Your task to perform on an android device: Go to calendar. Show me events next week Image 0: 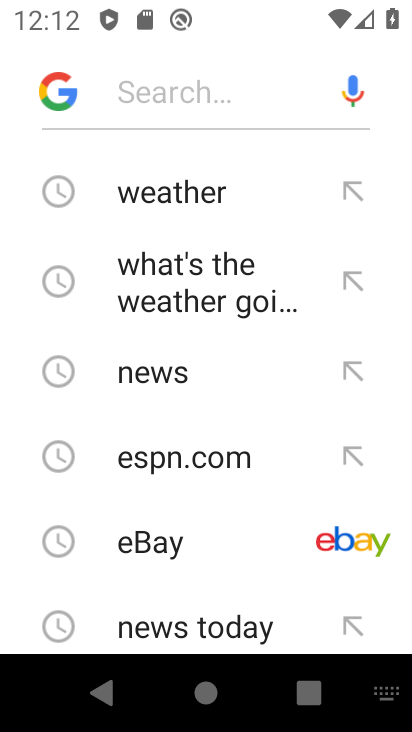
Step 0: press home button
Your task to perform on an android device: Go to calendar. Show me events next week Image 1: 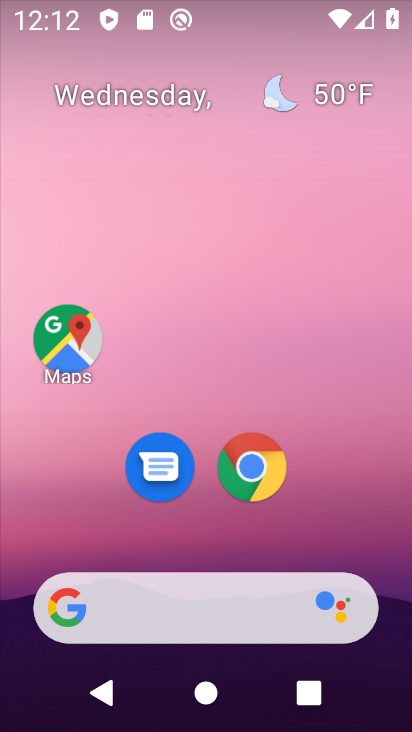
Step 1: drag from (199, 339) to (238, 46)
Your task to perform on an android device: Go to calendar. Show me events next week Image 2: 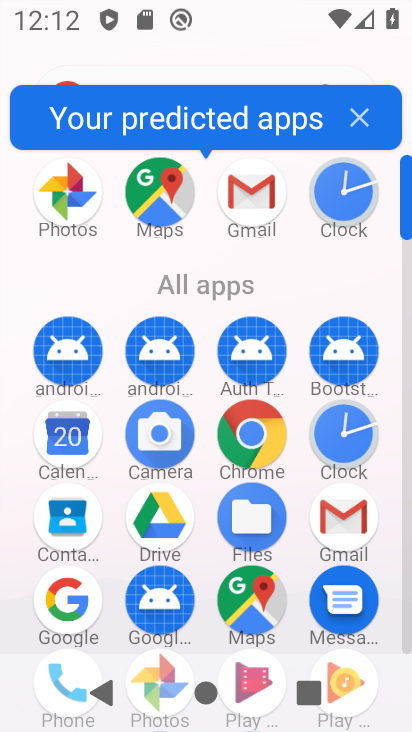
Step 2: click (69, 448)
Your task to perform on an android device: Go to calendar. Show me events next week Image 3: 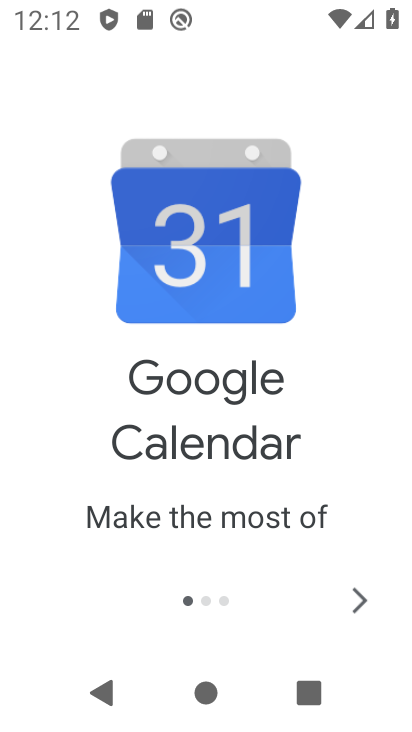
Step 3: click (358, 600)
Your task to perform on an android device: Go to calendar. Show me events next week Image 4: 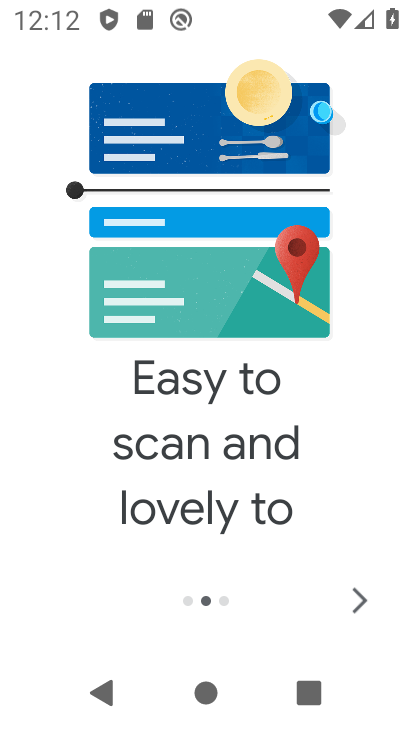
Step 4: click (358, 600)
Your task to perform on an android device: Go to calendar. Show me events next week Image 5: 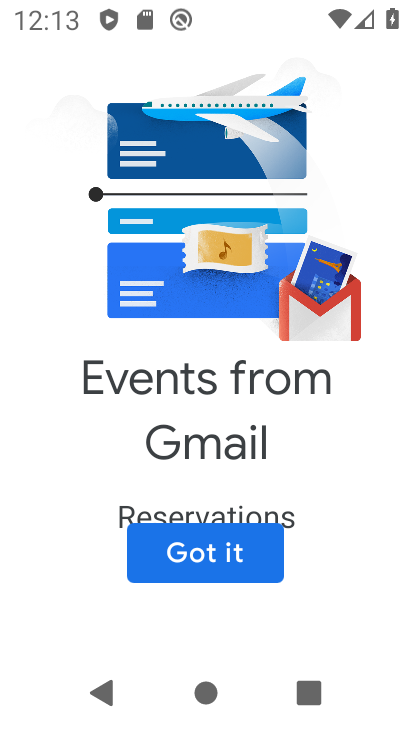
Step 5: click (246, 560)
Your task to perform on an android device: Go to calendar. Show me events next week Image 6: 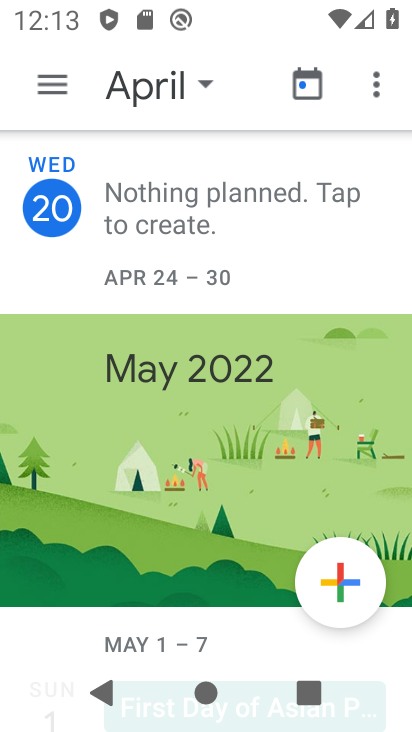
Step 6: click (57, 78)
Your task to perform on an android device: Go to calendar. Show me events next week Image 7: 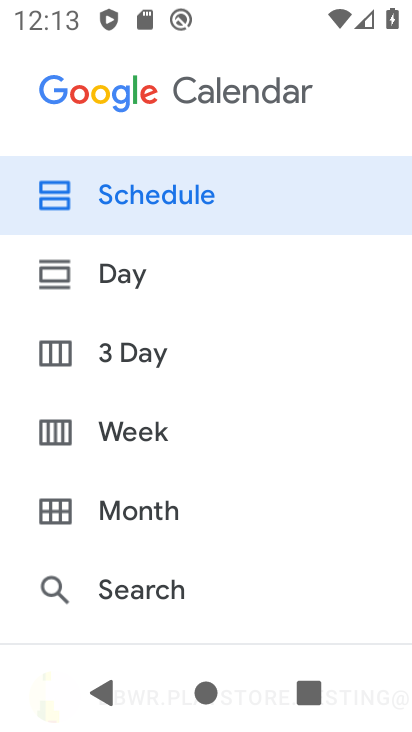
Step 7: click (153, 426)
Your task to perform on an android device: Go to calendar. Show me events next week Image 8: 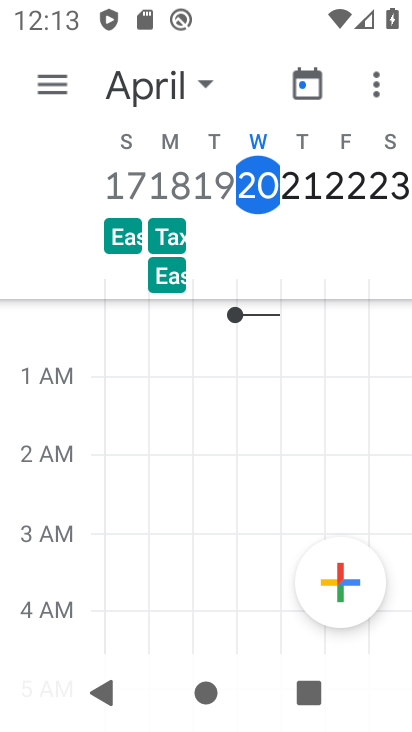
Step 8: drag from (272, 344) to (40, 359)
Your task to perform on an android device: Go to calendar. Show me events next week Image 9: 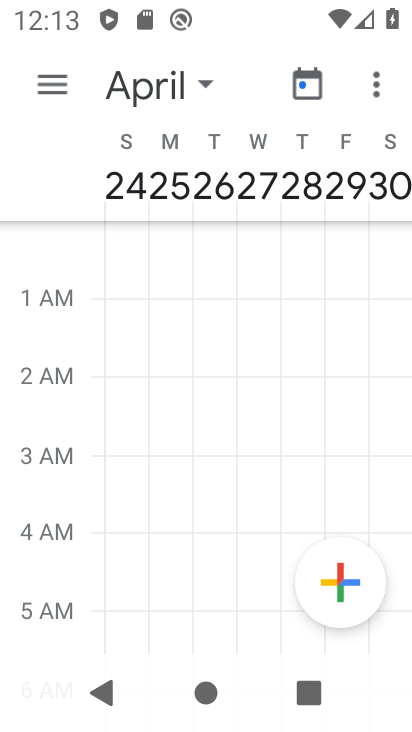
Step 9: click (54, 86)
Your task to perform on an android device: Go to calendar. Show me events next week Image 10: 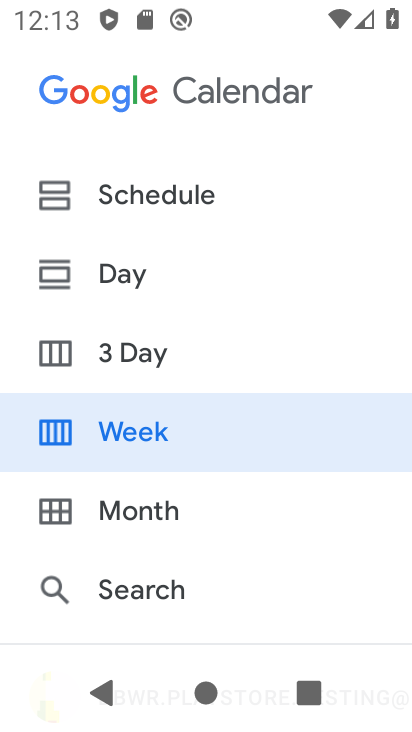
Step 10: drag from (172, 538) to (211, 176)
Your task to perform on an android device: Go to calendar. Show me events next week Image 11: 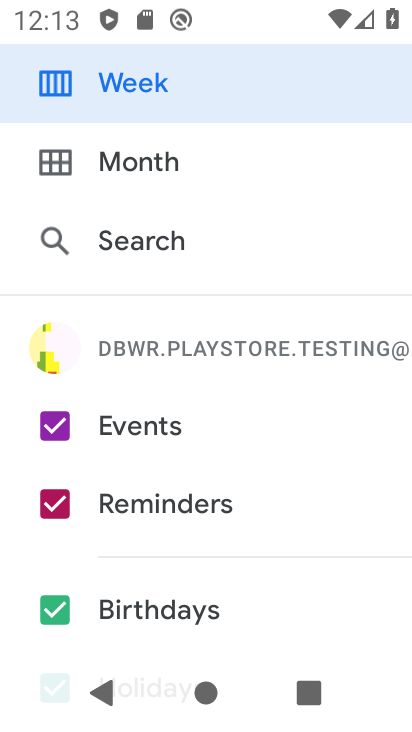
Step 11: click (56, 494)
Your task to perform on an android device: Go to calendar. Show me events next week Image 12: 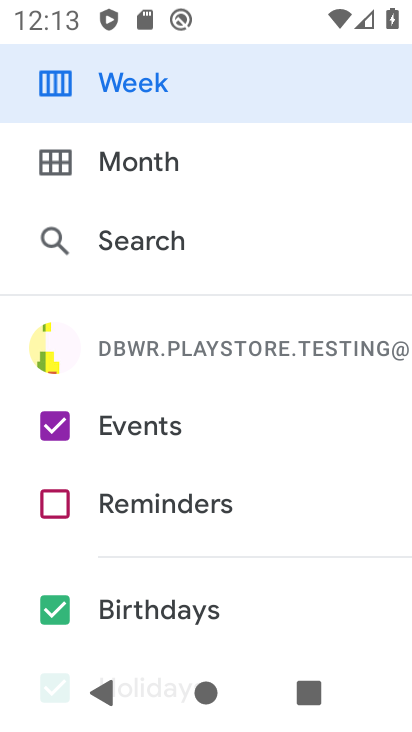
Step 12: click (47, 611)
Your task to perform on an android device: Go to calendar. Show me events next week Image 13: 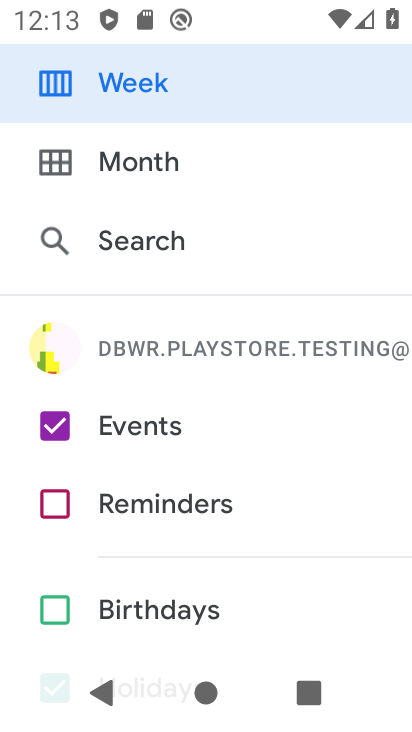
Step 13: drag from (128, 446) to (162, 187)
Your task to perform on an android device: Go to calendar. Show me events next week Image 14: 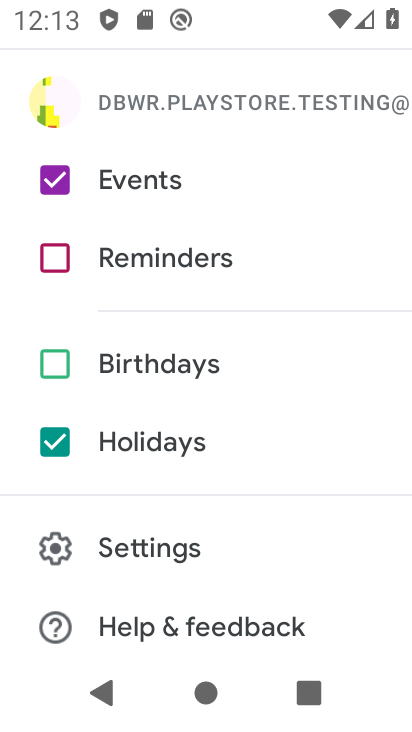
Step 14: click (55, 447)
Your task to perform on an android device: Go to calendar. Show me events next week Image 15: 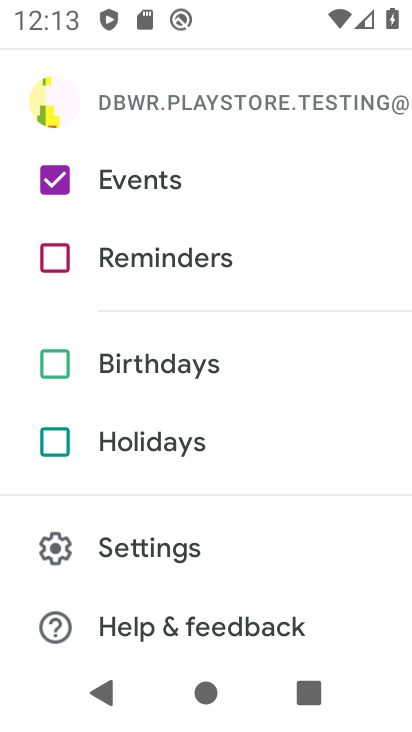
Step 15: click (107, 683)
Your task to perform on an android device: Go to calendar. Show me events next week Image 16: 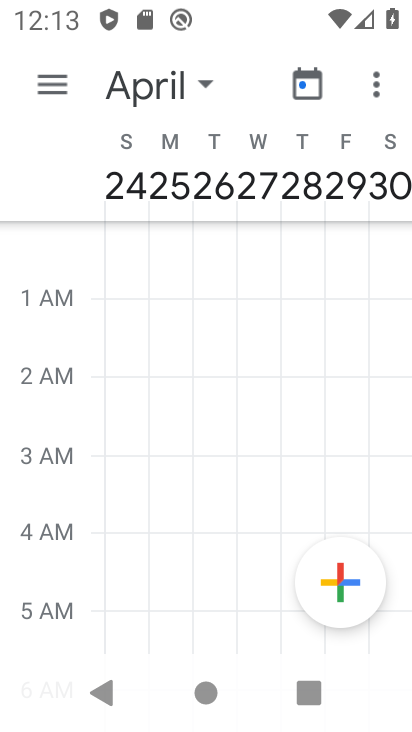
Step 16: task complete